Your task to perform on an android device: Open the calendar and show me this week's events? Image 0: 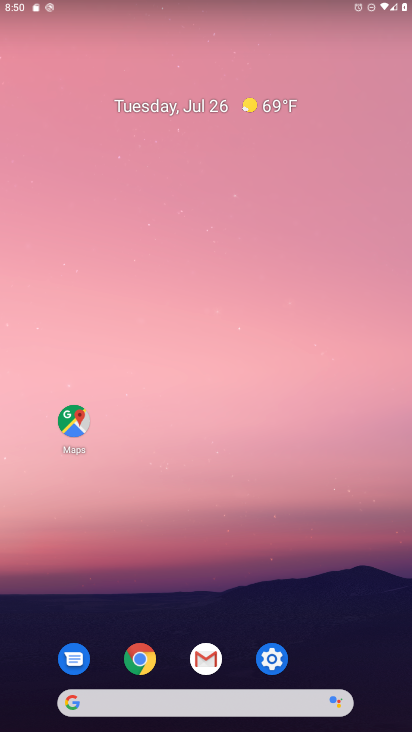
Step 0: drag from (219, 714) to (235, 202)
Your task to perform on an android device: Open the calendar and show me this week's events? Image 1: 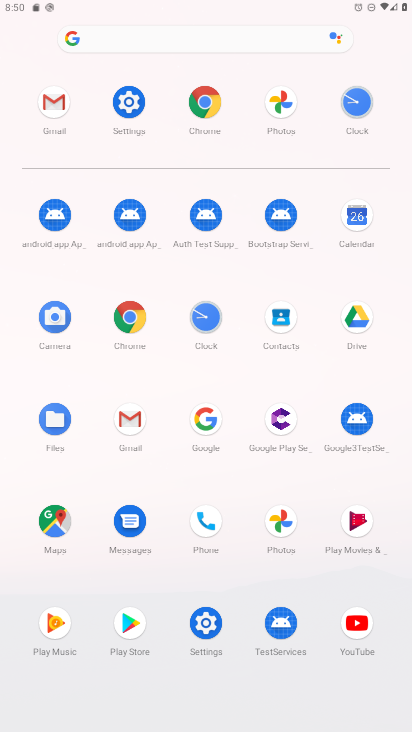
Step 1: click (358, 205)
Your task to perform on an android device: Open the calendar and show me this week's events? Image 2: 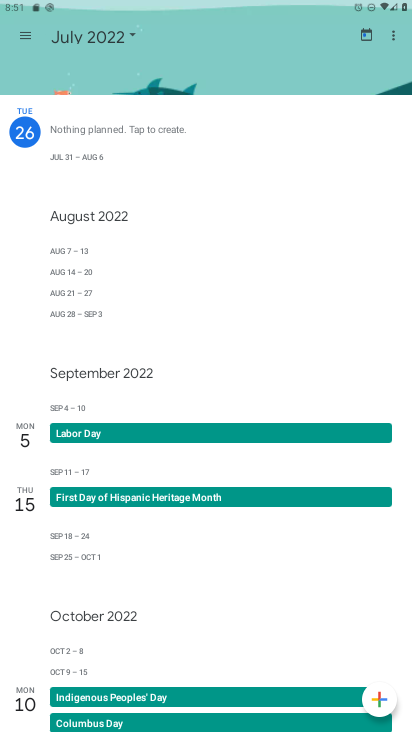
Step 2: click (14, 36)
Your task to perform on an android device: Open the calendar and show me this week's events? Image 3: 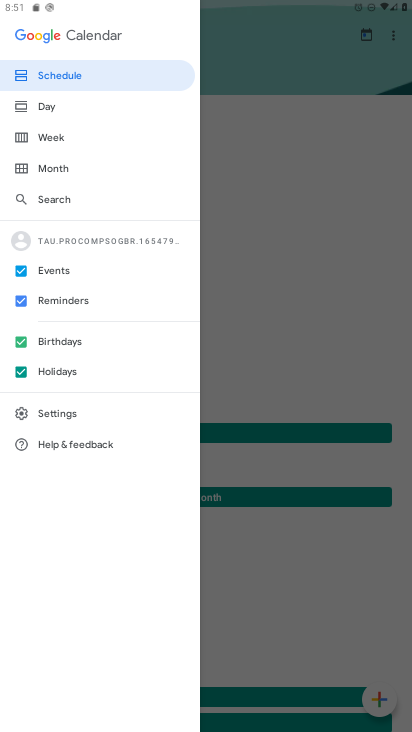
Step 3: click (44, 169)
Your task to perform on an android device: Open the calendar and show me this week's events? Image 4: 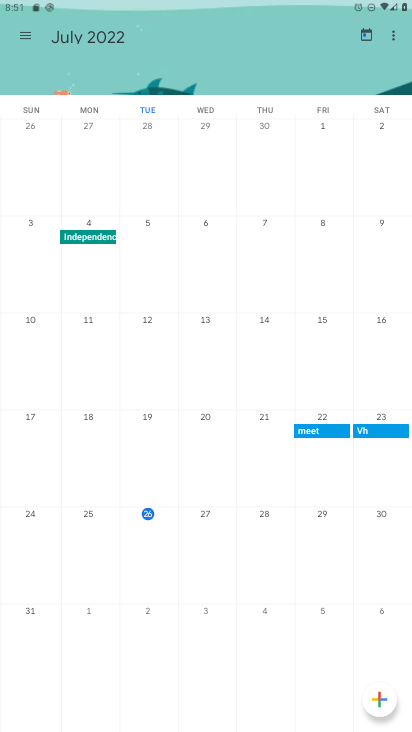
Step 4: click (146, 528)
Your task to perform on an android device: Open the calendar and show me this week's events? Image 5: 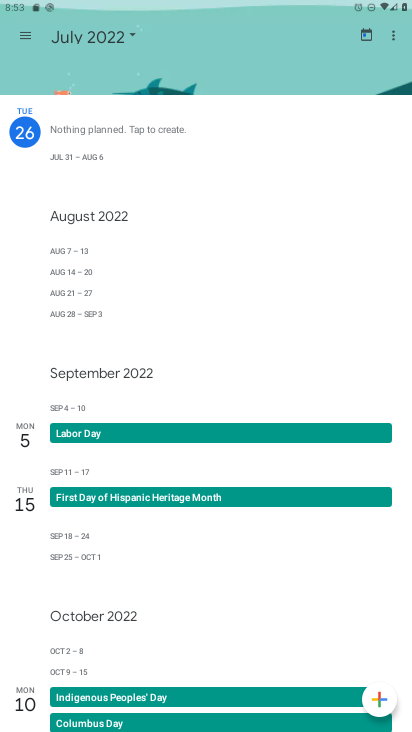
Step 5: task complete